Your task to perform on an android device: Open Youtube and go to the subscriptions tab Image 0: 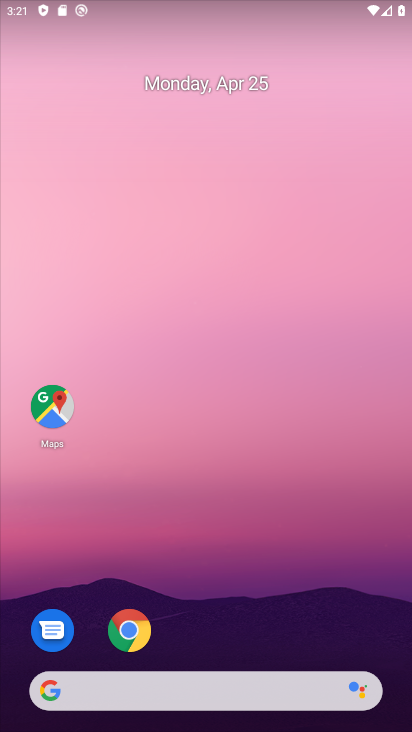
Step 0: drag from (216, 614) to (265, 101)
Your task to perform on an android device: Open Youtube and go to the subscriptions tab Image 1: 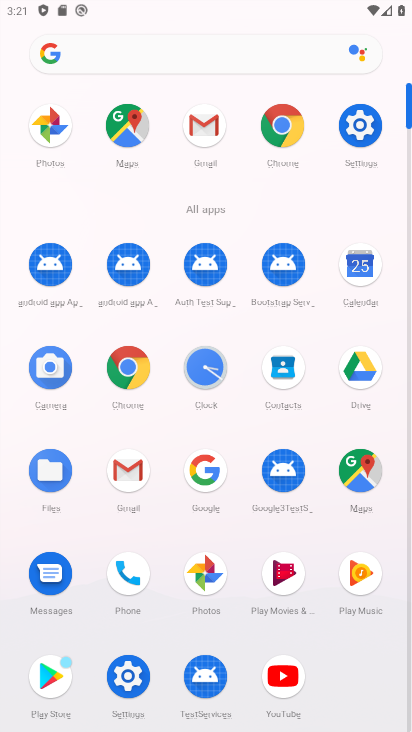
Step 1: click (290, 699)
Your task to perform on an android device: Open Youtube and go to the subscriptions tab Image 2: 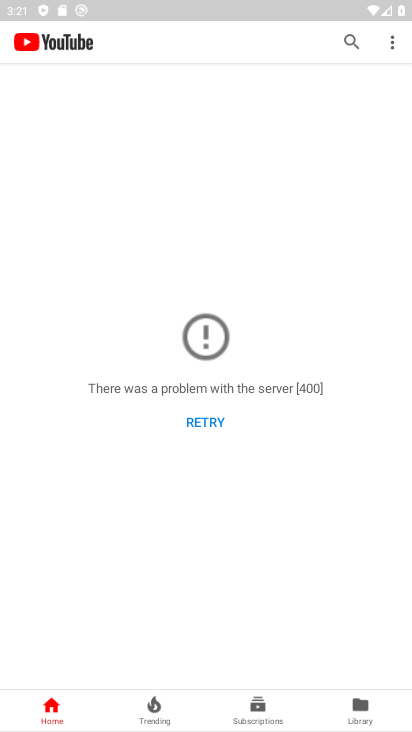
Step 2: click (211, 413)
Your task to perform on an android device: Open Youtube and go to the subscriptions tab Image 3: 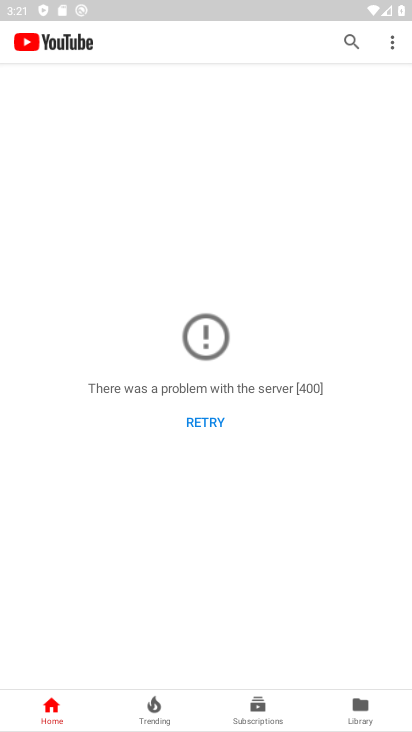
Step 3: click (253, 703)
Your task to perform on an android device: Open Youtube and go to the subscriptions tab Image 4: 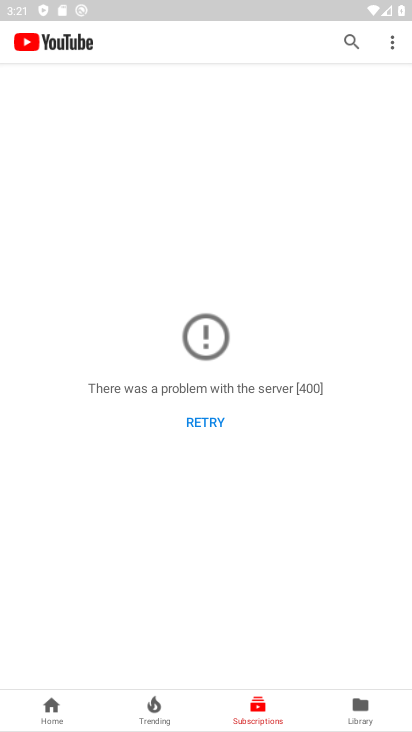
Step 4: task complete